Your task to perform on an android device: find which apps use the phone's location Image 0: 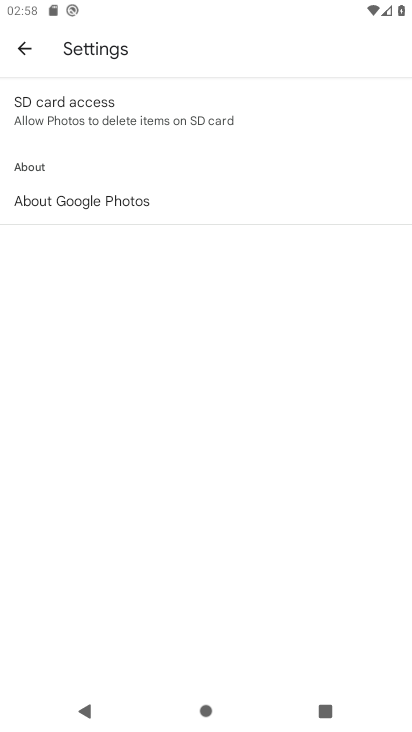
Step 0: press home button
Your task to perform on an android device: find which apps use the phone's location Image 1: 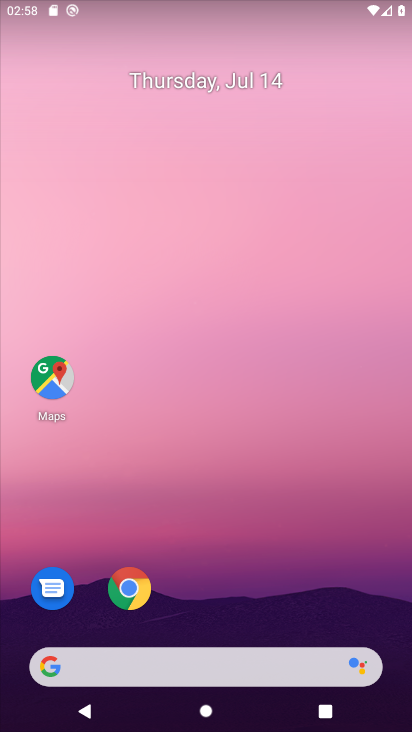
Step 1: drag from (249, 598) to (194, 131)
Your task to perform on an android device: find which apps use the phone's location Image 2: 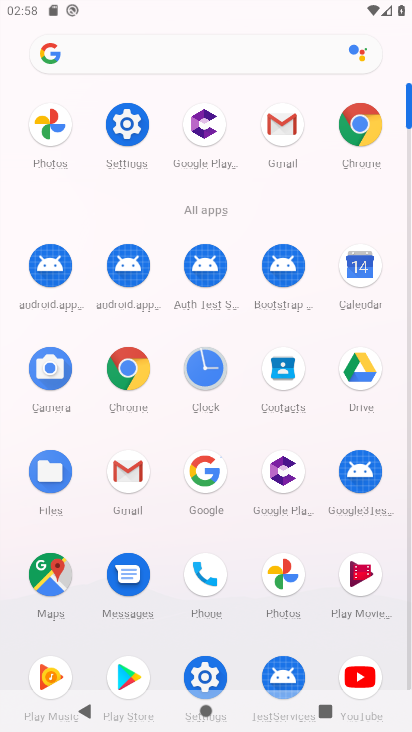
Step 2: click (124, 133)
Your task to perform on an android device: find which apps use the phone's location Image 3: 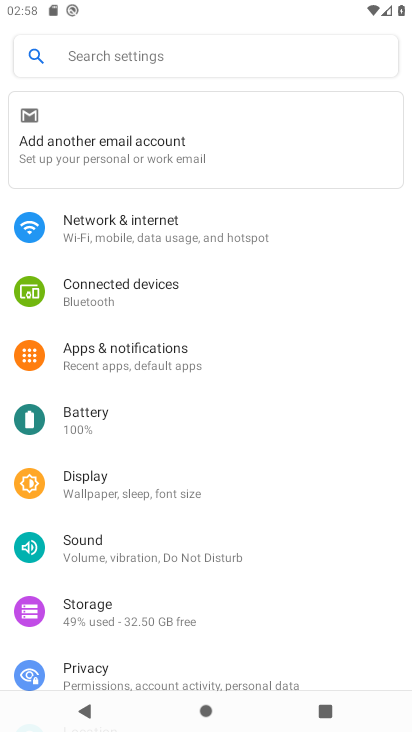
Step 3: drag from (192, 653) to (140, 327)
Your task to perform on an android device: find which apps use the phone's location Image 4: 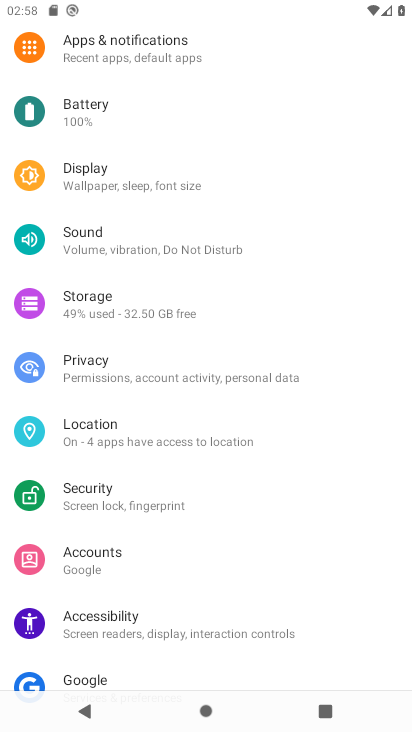
Step 4: click (163, 442)
Your task to perform on an android device: find which apps use the phone's location Image 5: 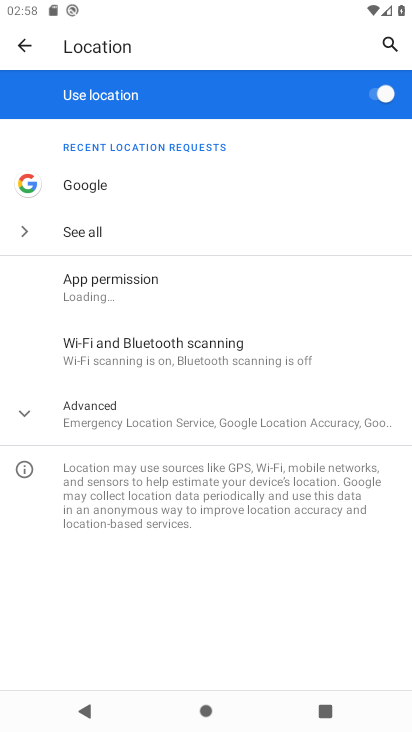
Step 5: click (145, 299)
Your task to perform on an android device: find which apps use the phone's location Image 6: 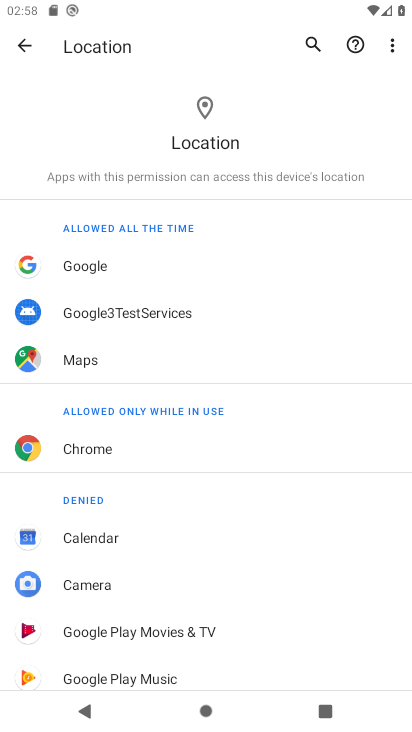
Step 6: task complete